Your task to perform on an android device: create a new album in the google photos Image 0: 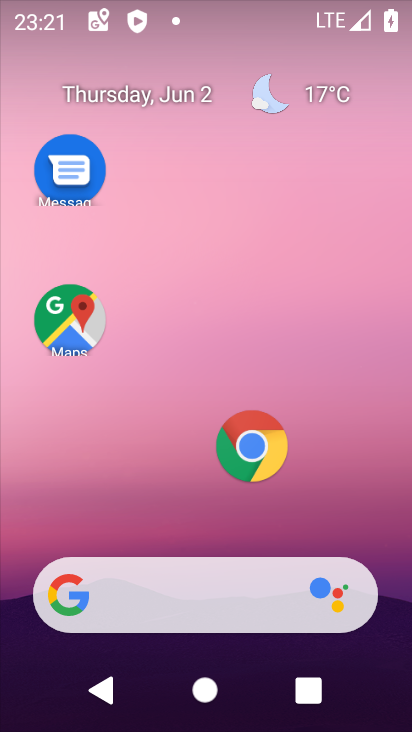
Step 0: press home button
Your task to perform on an android device: create a new album in the google photos Image 1: 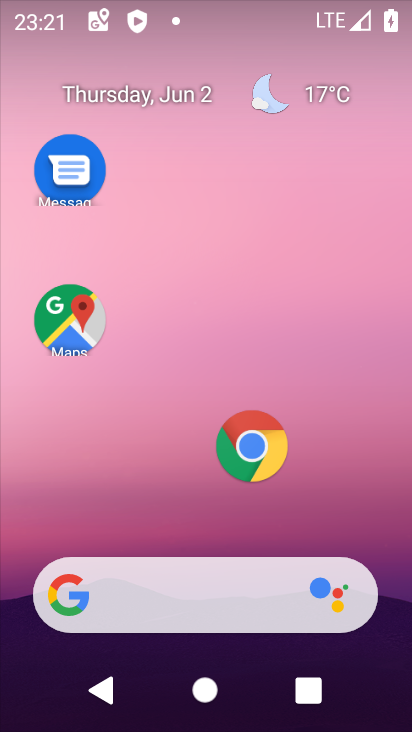
Step 1: drag from (321, 525) to (316, 23)
Your task to perform on an android device: create a new album in the google photos Image 2: 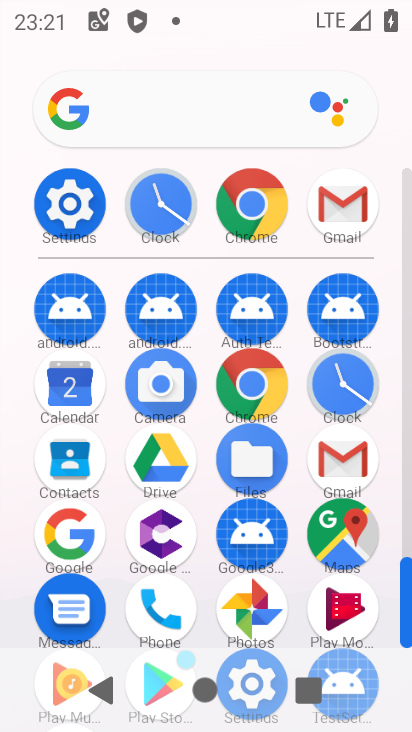
Step 2: drag from (407, 592) to (407, 655)
Your task to perform on an android device: create a new album in the google photos Image 3: 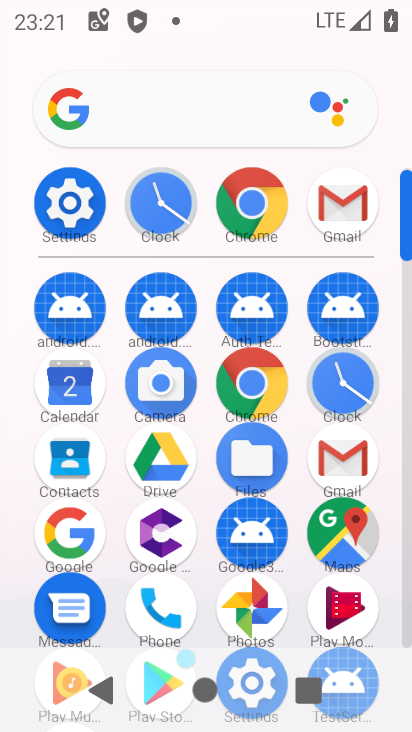
Step 3: click (247, 593)
Your task to perform on an android device: create a new album in the google photos Image 4: 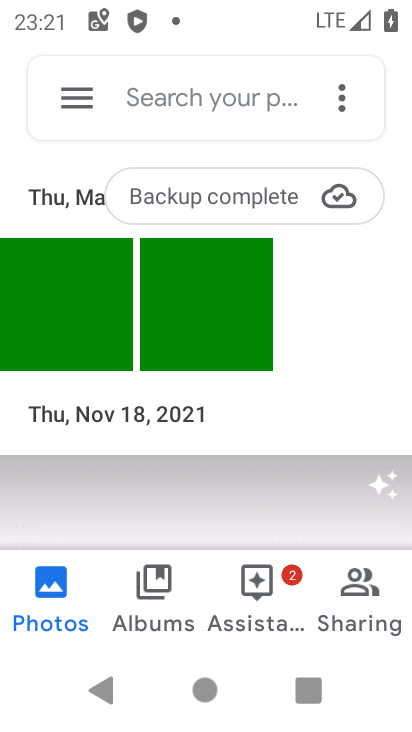
Step 4: click (43, 310)
Your task to perform on an android device: create a new album in the google photos Image 5: 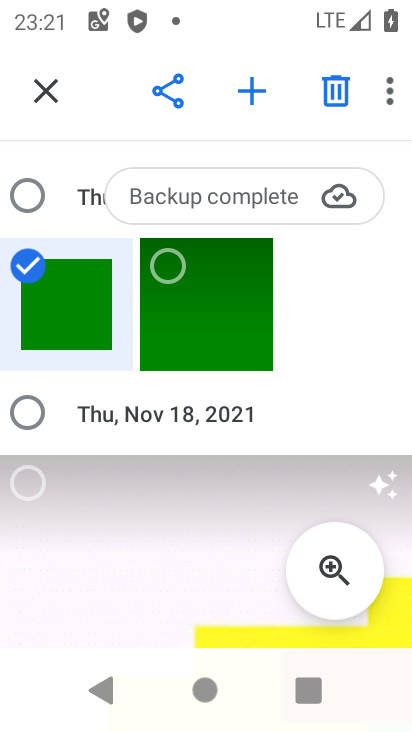
Step 5: click (185, 275)
Your task to perform on an android device: create a new album in the google photos Image 6: 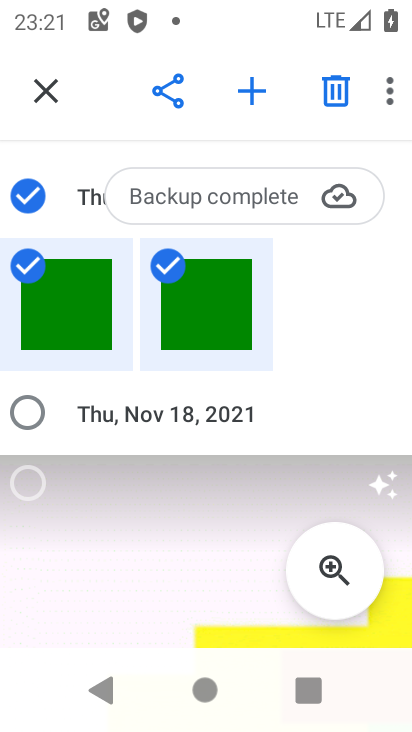
Step 6: click (218, 89)
Your task to perform on an android device: create a new album in the google photos Image 7: 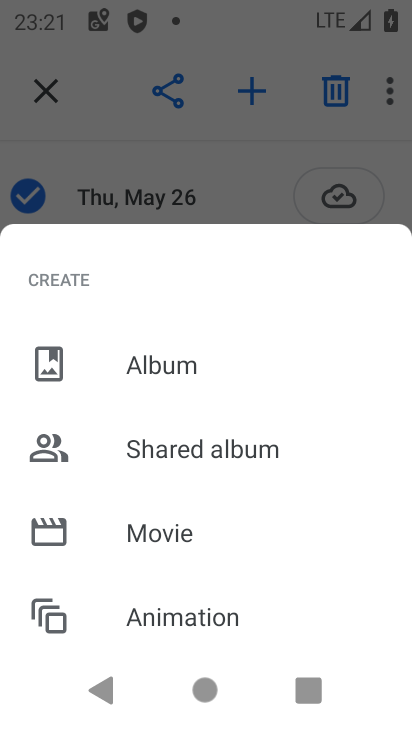
Step 7: click (103, 360)
Your task to perform on an android device: create a new album in the google photos Image 8: 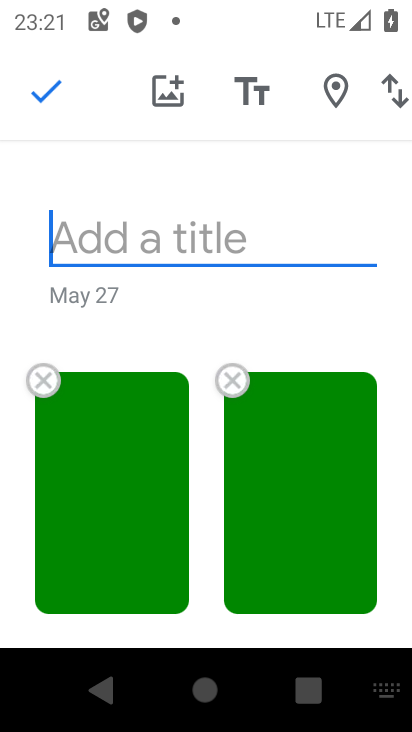
Step 8: type "esxcvbnmkjhddddddhvg"
Your task to perform on an android device: create a new album in the google photos Image 9: 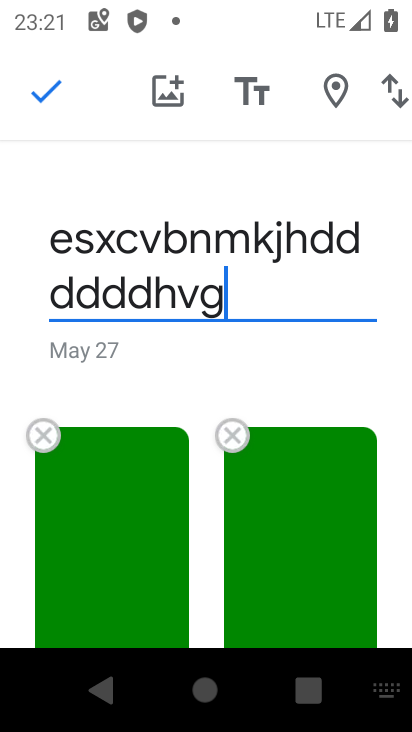
Step 9: click (42, 93)
Your task to perform on an android device: create a new album in the google photos Image 10: 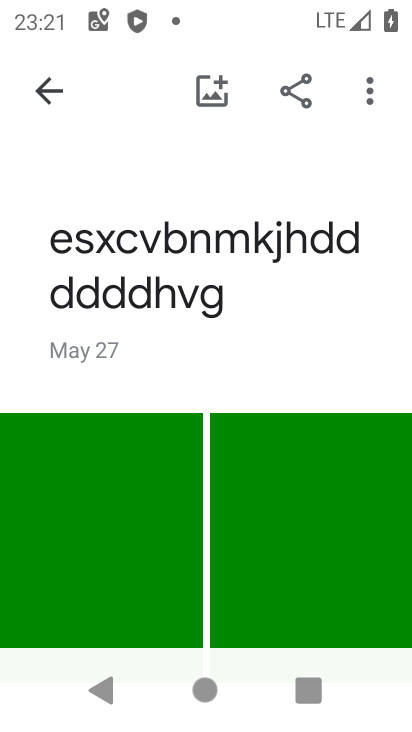
Step 10: task complete